Your task to perform on an android device: toggle javascript in the chrome app Image 0: 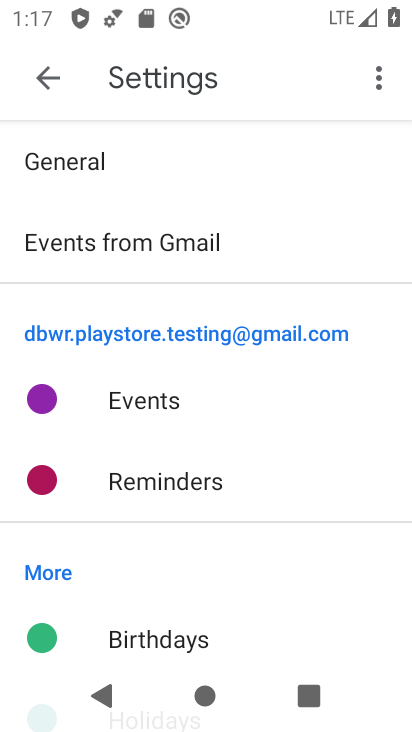
Step 0: press home button
Your task to perform on an android device: toggle javascript in the chrome app Image 1: 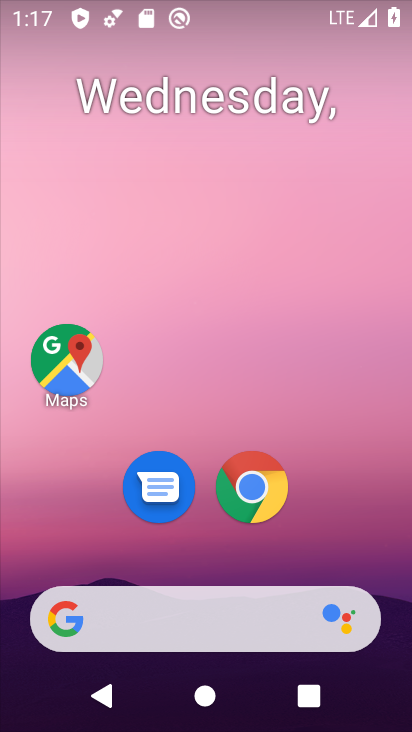
Step 1: click (259, 510)
Your task to perform on an android device: toggle javascript in the chrome app Image 2: 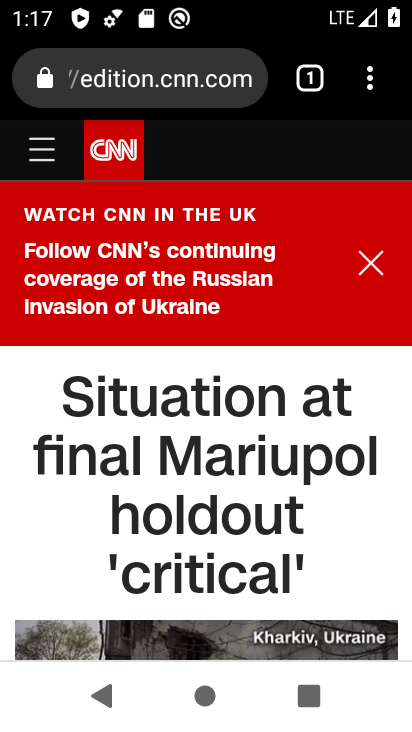
Step 2: click (373, 102)
Your task to perform on an android device: toggle javascript in the chrome app Image 3: 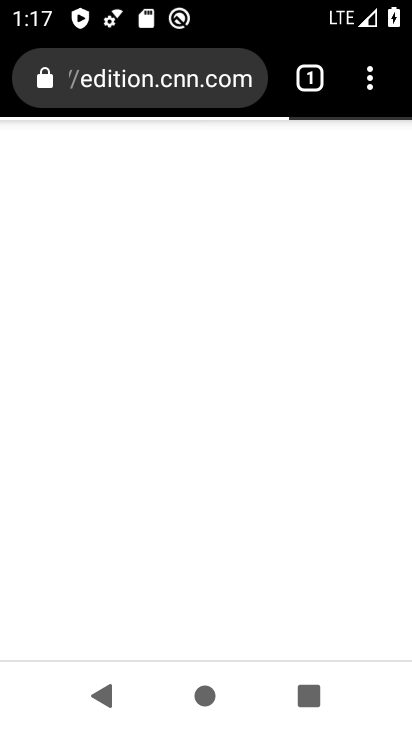
Step 3: drag from (374, 86) to (199, 549)
Your task to perform on an android device: toggle javascript in the chrome app Image 4: 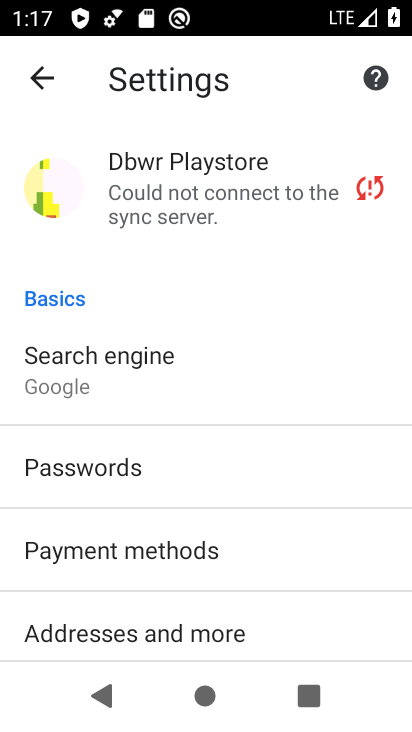
Step 4: drag from (261, 638) to (300, 205)
Your task to perform on an android device: toggle javascript in the chrome app Image 5: 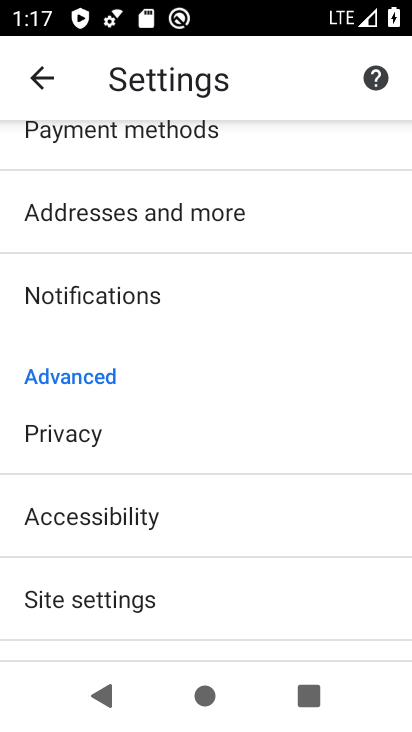
Step 5: click (241, 586)
Your task to perform on an android device: toggle javascript in the chrome app Image 6: 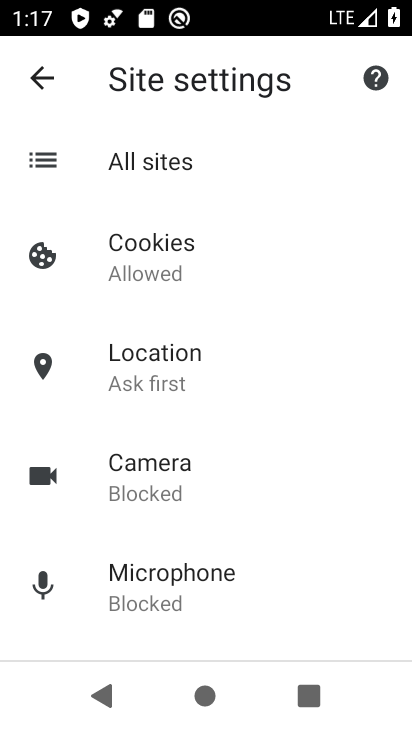
Step 6: drag from (241, 586) to (226, 225)
Your task to perform on an android device: toggle javascript in the chrome app Image 7: 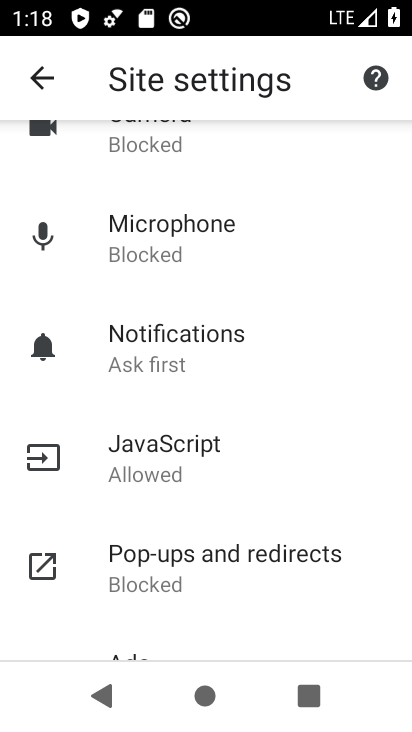
Step 7: click (250, 431)
Your task to perform on an android device: toggle javascript in the chrome app Image 8: 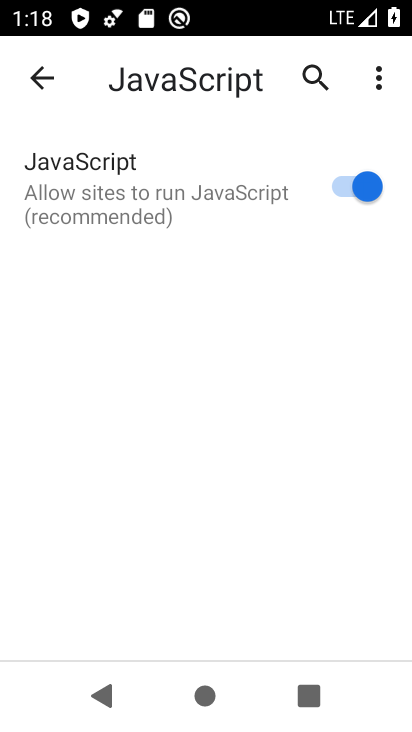
Step 8: click (348, 179)
Your task to perform on an android device: toggle javascript in the chrome app Image 9: 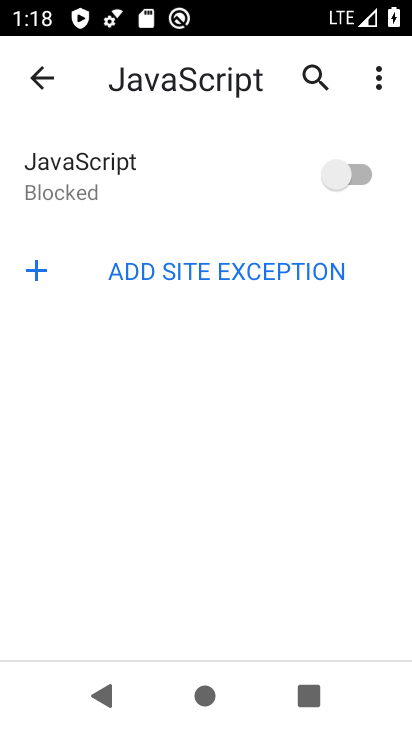
Step 9: task complete